Your task to perform on an android device: Open Chrome and go to settings Image 0: 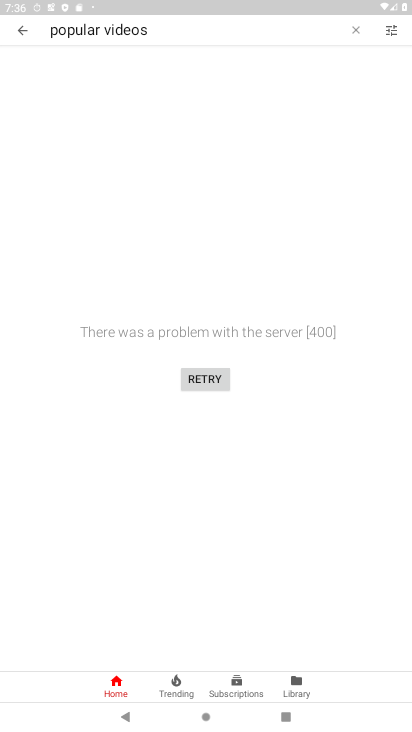
Step 0: press home button
Your task to perform on an android device: Open Chrome and go to settings Image 1: 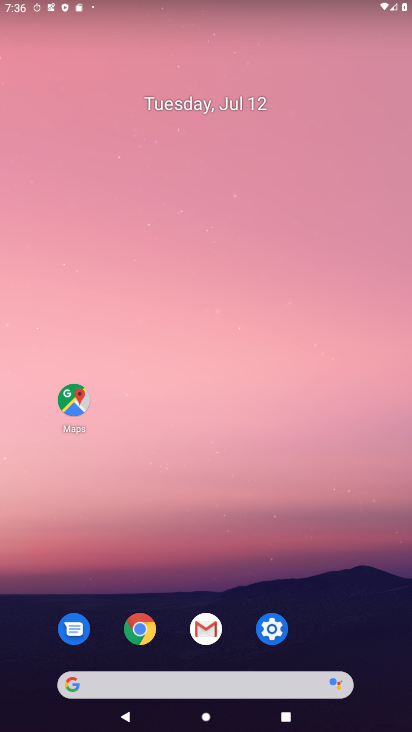
Step 1: click (285, 648)
Your task to perform on an android device: Open Chrome and go to settings Image 2: 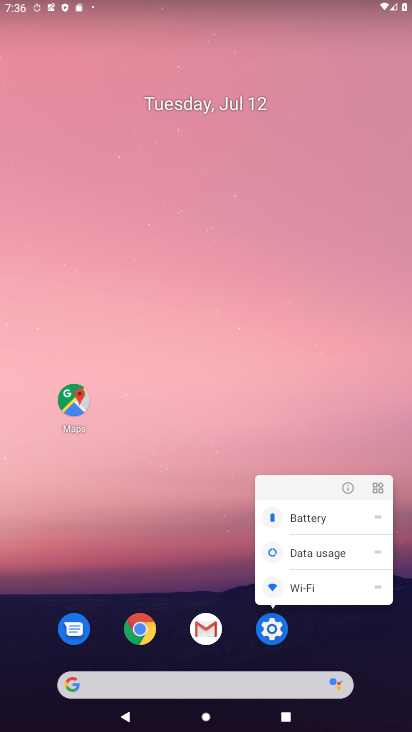
Step 2: click (265, 634)
Your task to perform on an android device: Open Chrome and go to settings Image 3: 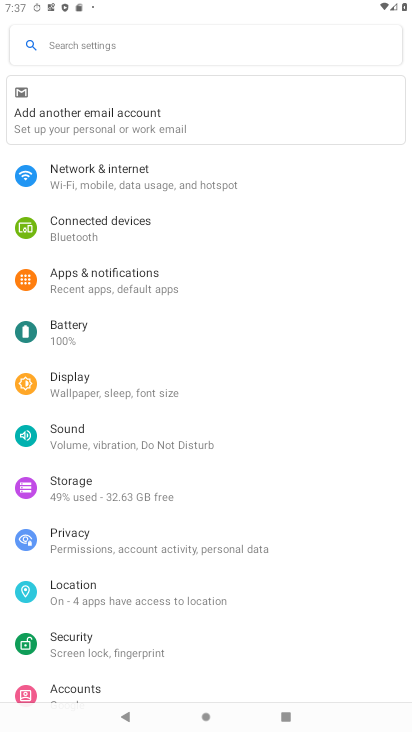
Step 3: press home button
Your task to perform on an android device: Open Chrome and go to settings Image 4: 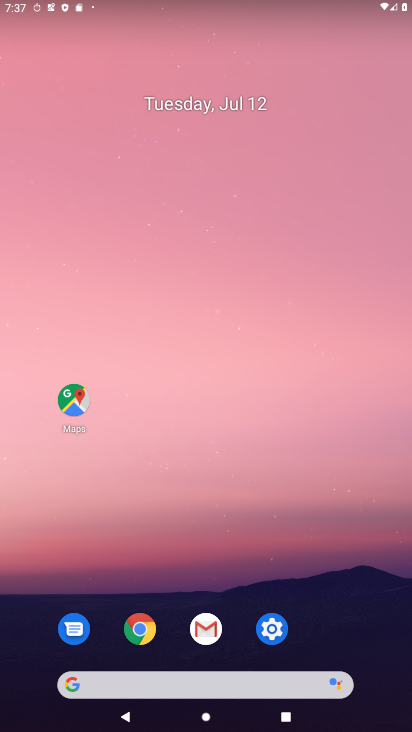
Step 4: click (162, 612)
Your task to perform on an android device: Open Chrome and go to settings Image 5: 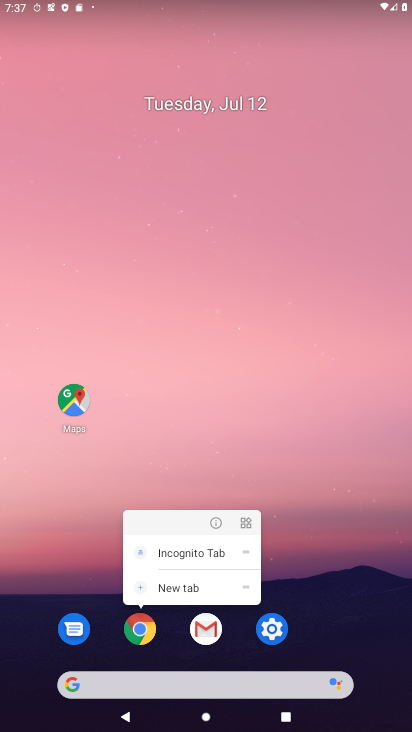
Step 5: click (144, 638)
Your task to perform on an android device: Open Chrome and go to settings Image 6: 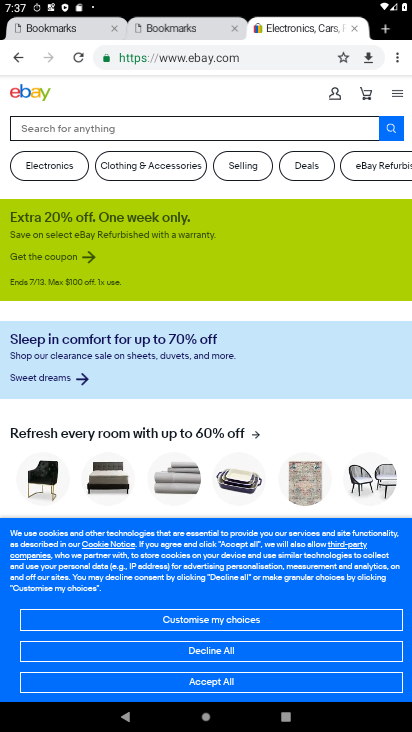
Step 6: click (397, 54)
Your task to perform on an android device: Open Chrome and go to settings Image 7: 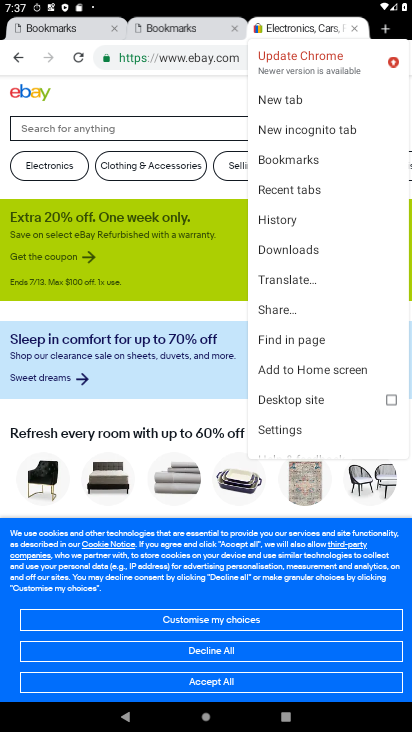
Step 7: click (276, 421)
Your task to perform on an android device: Open Chrome and go to settings Image 8: 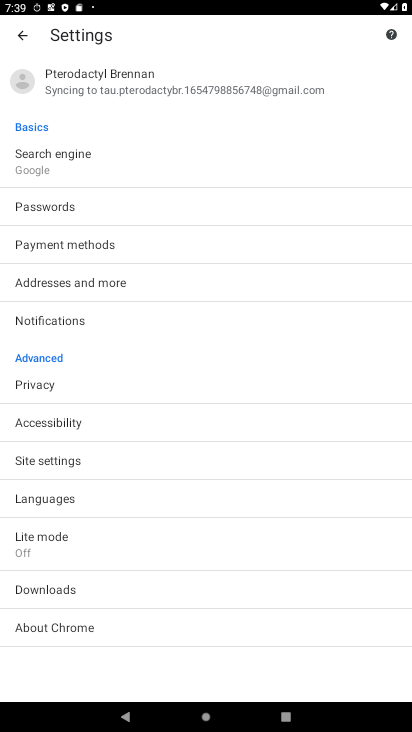
Step 8: task complete